Your task to perform on an android device: Search for "alienware aurora" on target.com, select the first entry, add it to the cart, then select checkout. Image 0: 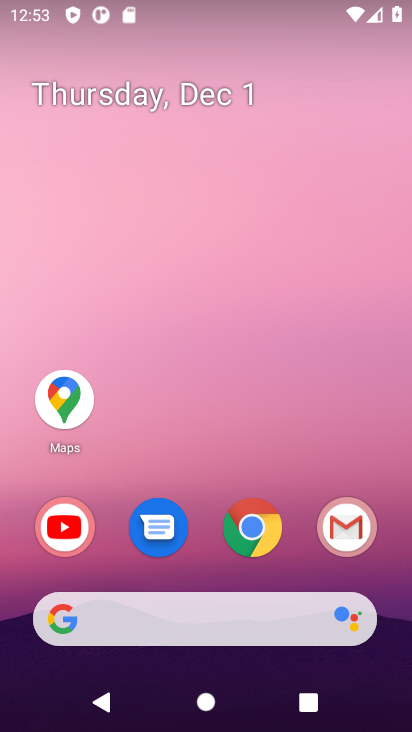
Step 0: click (257, 523)
Your task to perform on an android device: Search for "alienware aurora" on target.com, select the first entry, add it to the cart, then select checkout. Image 1: 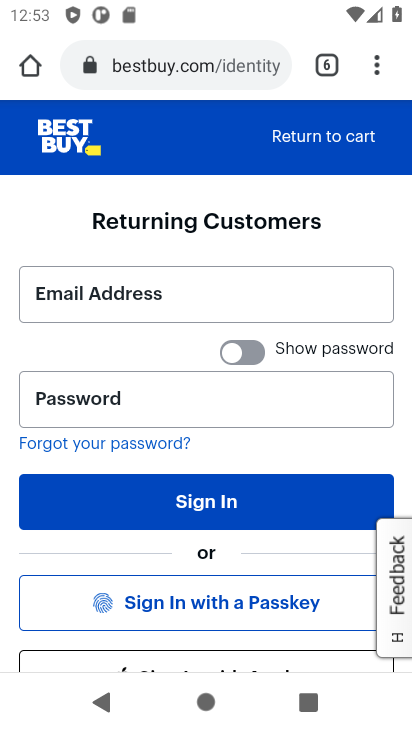
Step 1: click (191, 69)
Your task to perform on an android device: Search for "alienware aurora" on target.com, select the first entry, add it to the cart, then select checkout. Image 2: 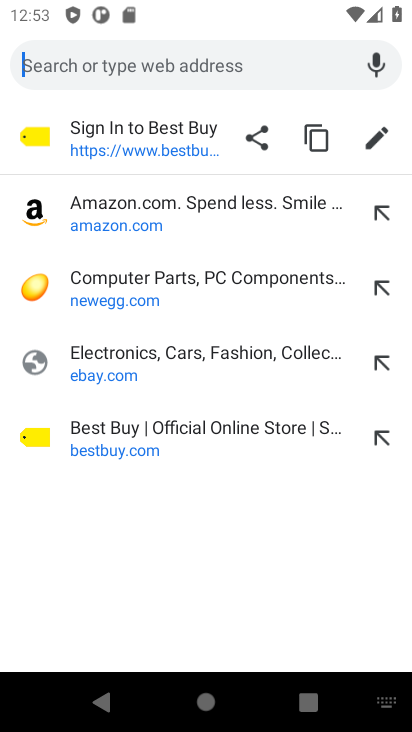
Step 2: type "target.com"
Your task to perform on an android device: Search for "alienware aurora" on target.com, select the first entry, add it to the cart, then select checkout. Image 3: 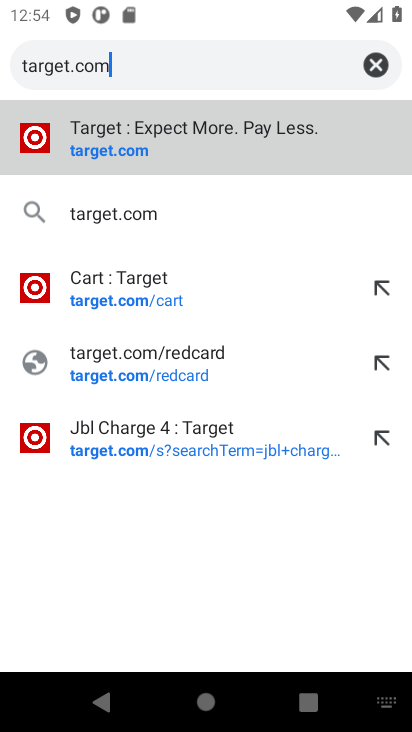
Step 3: click (125, 158)
Your task to perform on an android device: Search for "alienware aurora" on target.com, select the first entry, add it to the cart, then select checkout. Image 4: 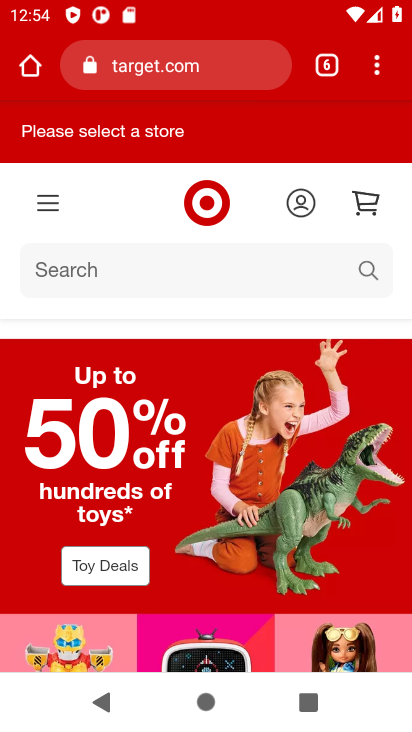
Step 4: click (87, 266)
Your task to perform on an android device: Search for "alienware aurora" on target.com, select the first entry, add it to the cart, then select checkout. Image 5: 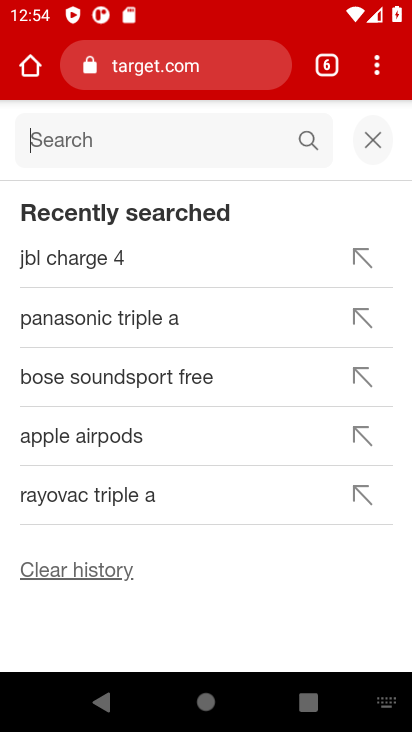
Step 5: type "alienware aurora"
Your task to perform on an android device: Search for "alienware aurora" on target.com, select the first entry, add it to the cart, then select checkout. Image 6: 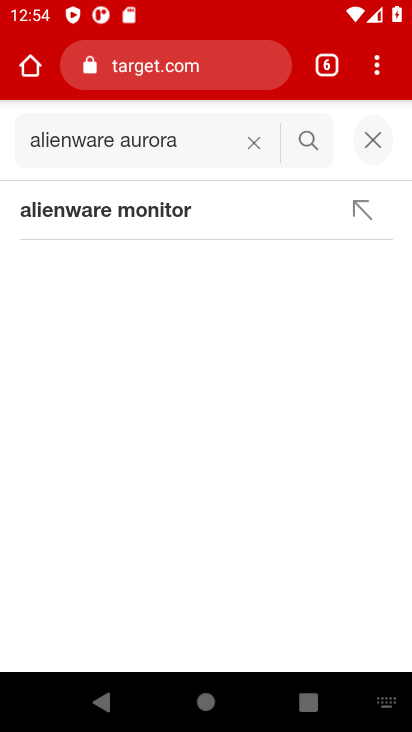
Step 6: click (301, 139)
Your task to perform on an android device: Search for "alienware aurora" on target.com, select the first entry, add it to the cart, then select checkout. Image 7: 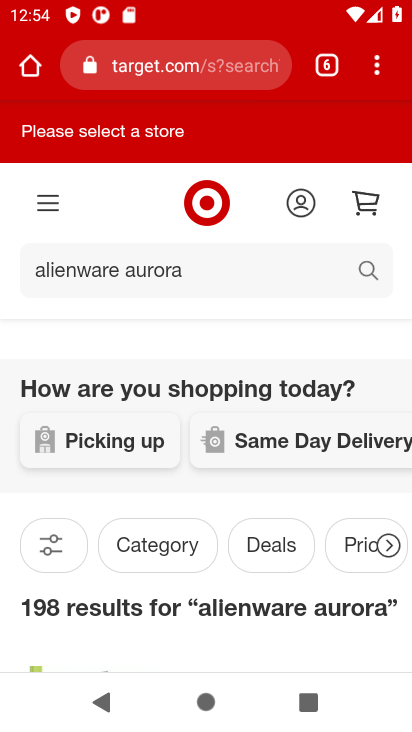
Step 7: task complete